Your task to perform on an android device: change timer sound Image 0: 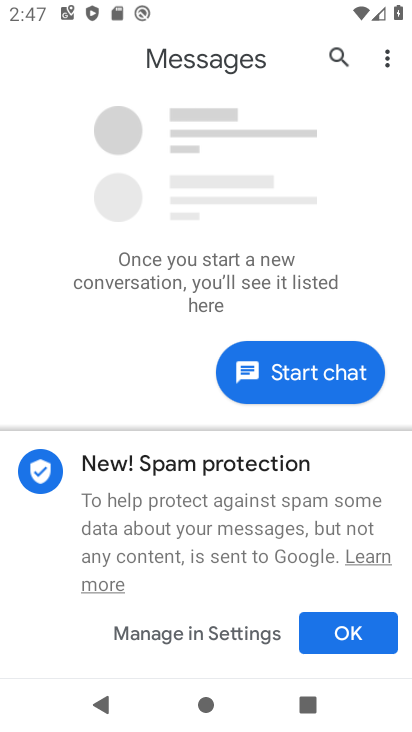
Step 0: press home button
Your task to perform on an android device: change timer sound Image 1: 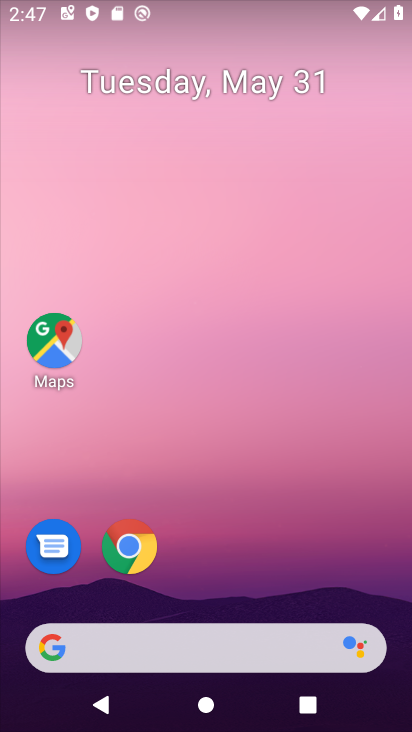
Step 1: drag from (211, 574) to (212, 118)
Your task to perform on an android device: change timer sound Image 2: 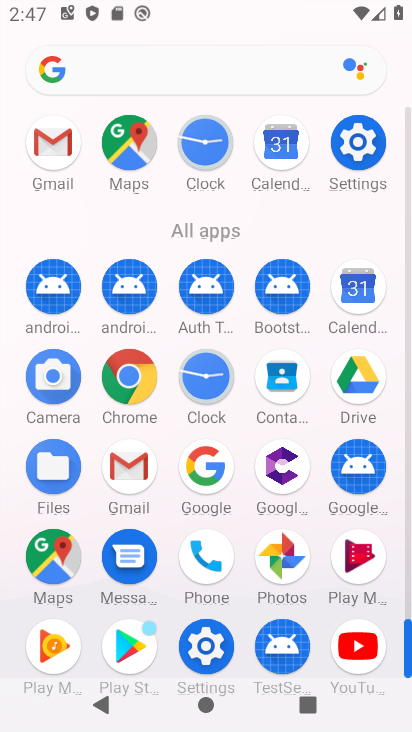
Step 2: click (200, 142)
Your task to perform on an android device: change timer sound Image 3: 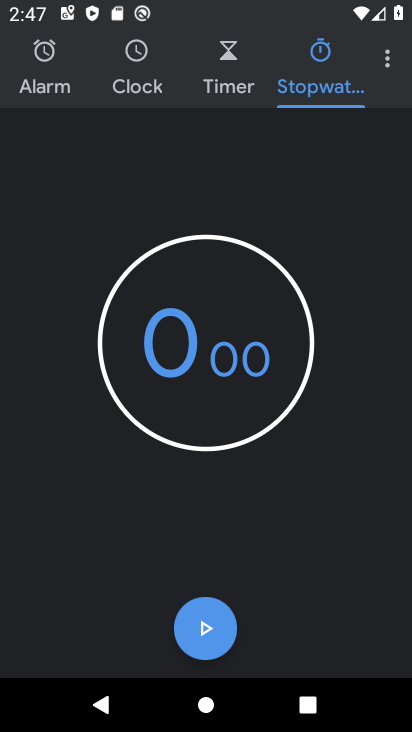
Step 3: click (380, 55)
Your task to perform on an android device: change timer sound Image 4: 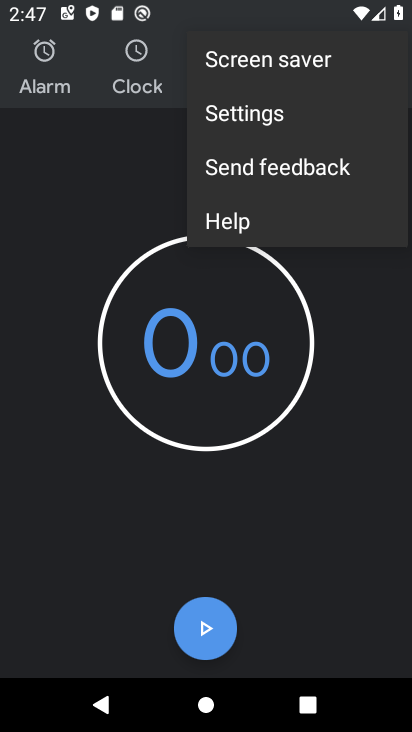
Step 4: click (312, 119)
Your task to perform on an android device: change timer sound Image 5: 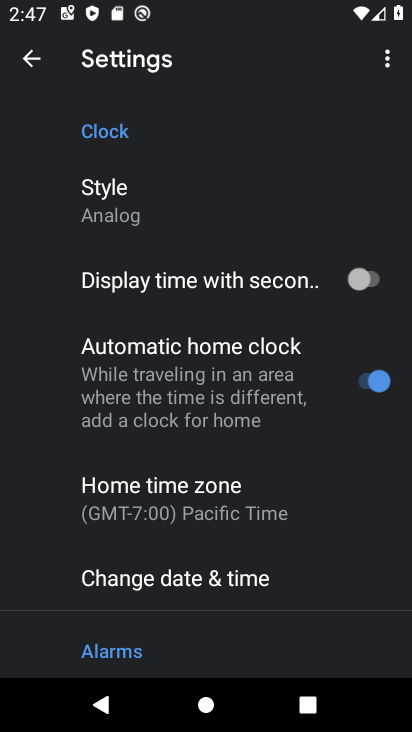
Step 5: drag from (237, 534) to (283, 58)
Your task to perform on an android device: change timer sound Image 6: 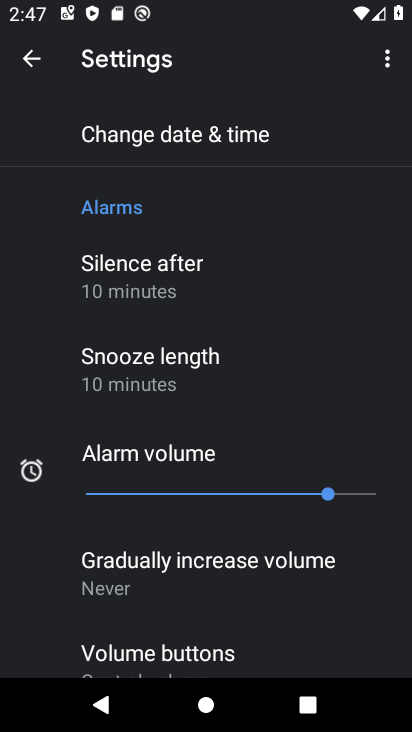
Step 6: drag from (230, 346) to (244, 51)
Your task to perform on an android device: change timer sound Image 7: 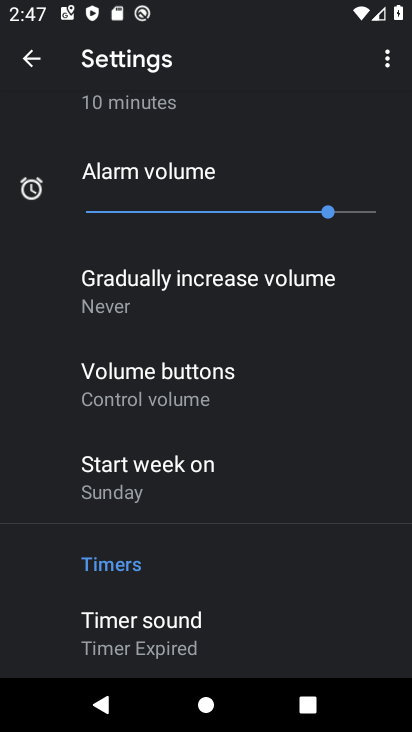
Step 7: drag from (205, 352) to (212, 157)
Your task to perform on an android device: change timer sound Image 8: 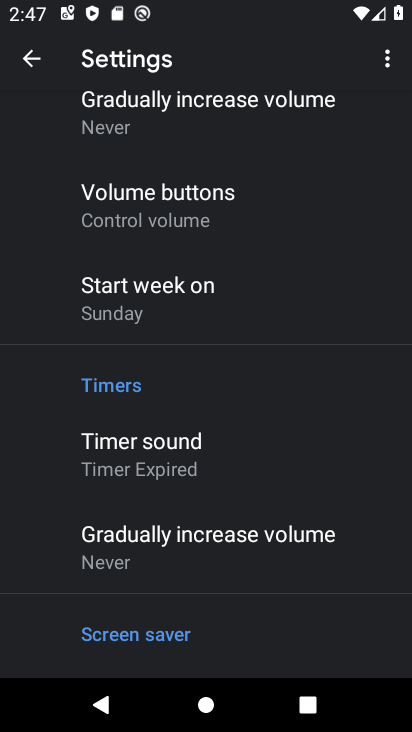
Step 8: click (177, 443)
Your task to perform on an android device: change timer sound Image 9: 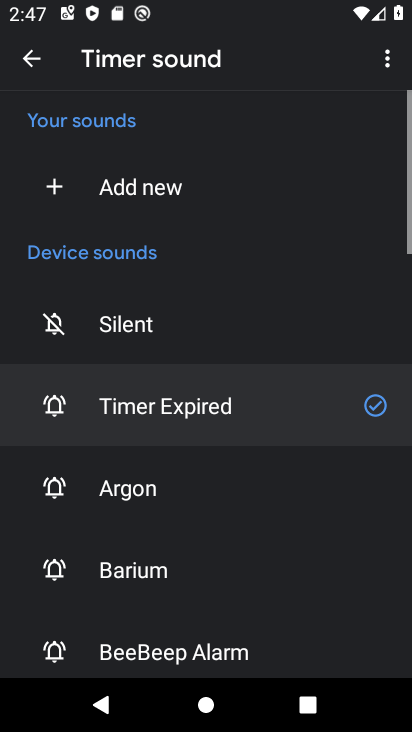
Step 9: click (152, 501)
Your task to perform on an android device: change timer sound Image 10: 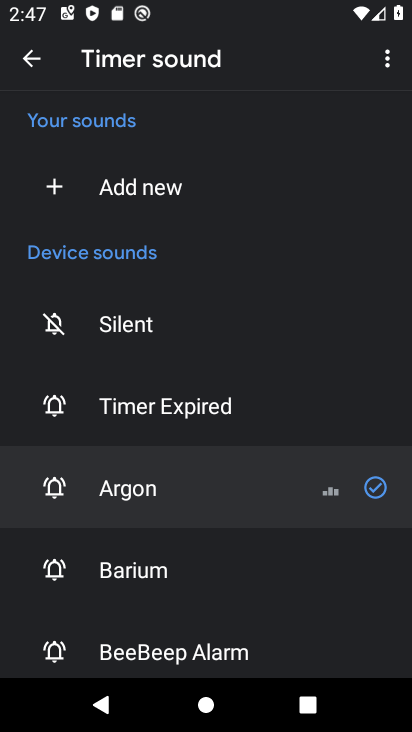
Step 10: task complete